Your task to perform on an android device: open a new tab in the chrome app Image 0: 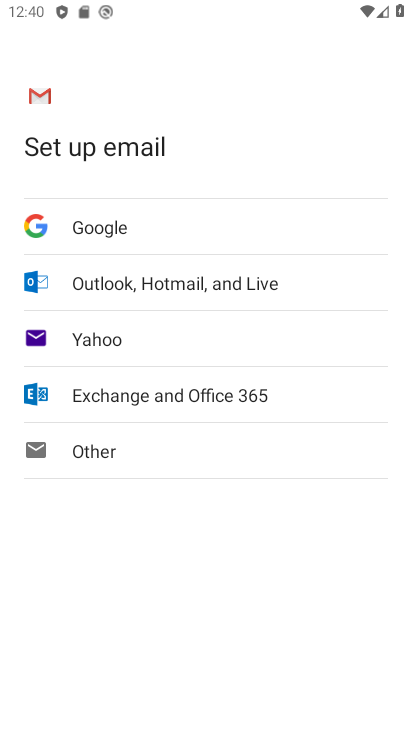
Step 0: drag from (182, 700) to (265, 173)
Your task to perform on an android device: open a new tab in the chrome app Image 1: 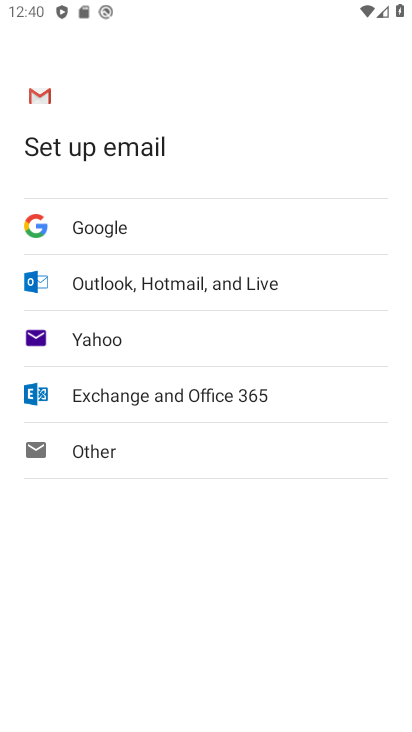
Step 1: press home button
Your task to perform on an android device: open a new tab in the chrome app Image 2: 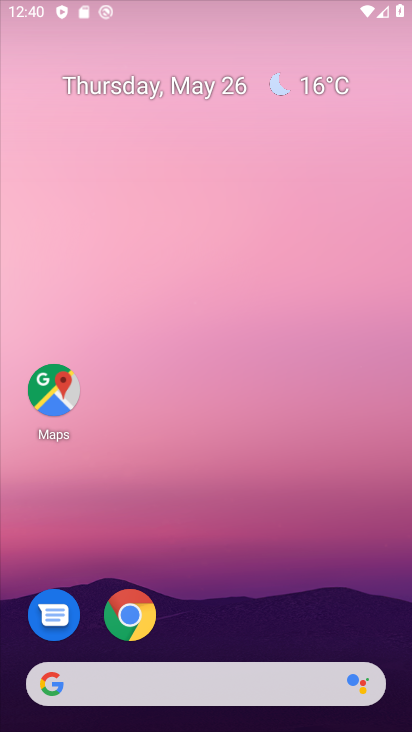
Step 2: drag from (192, 578) to (223, 98)
Your task to perform on an android device: open a new tab in the chrome app Image 3: 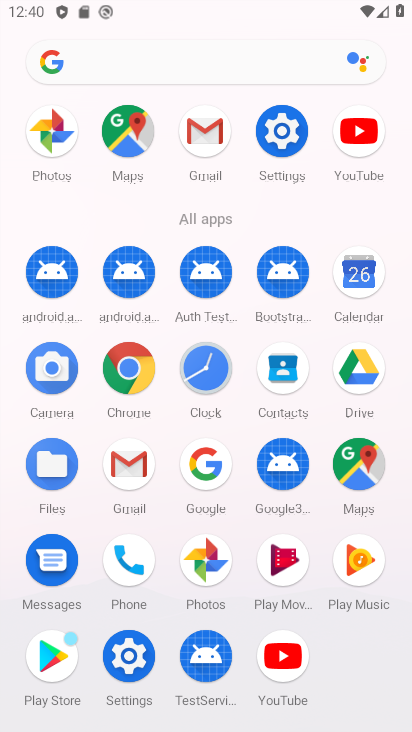
Step 3: click (134, 370)
Your task to perform on an android device: open a new tab in the chrome app Image 4: 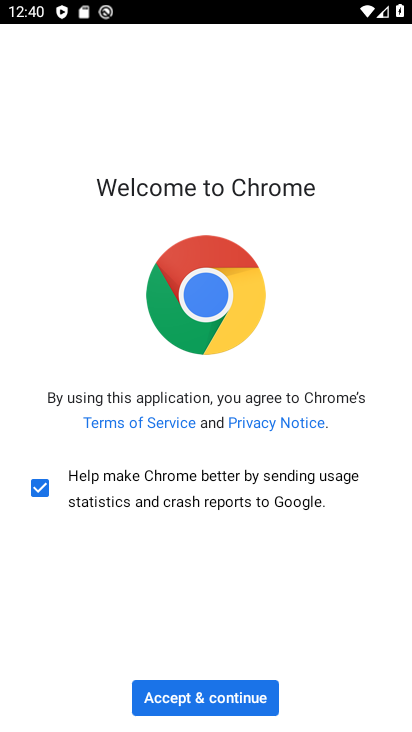
Step 4: click (222, 678)
Your task to perform on an android device: open a new tab in the chrome app Image 5: 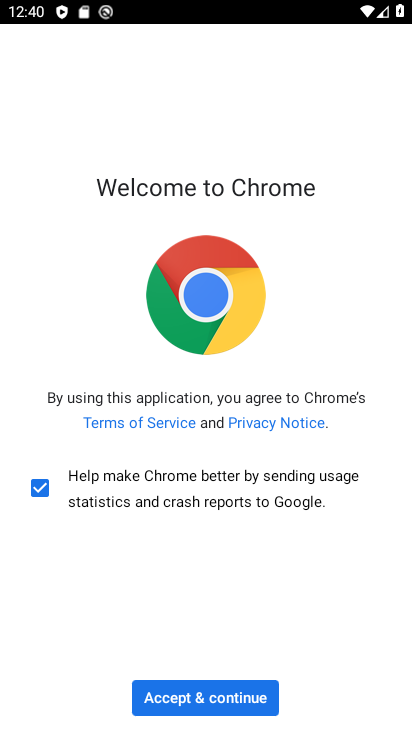
Step 5: click (201, 693)
Your task to perform on an android device: open a new tab in the chrome app Image 6: 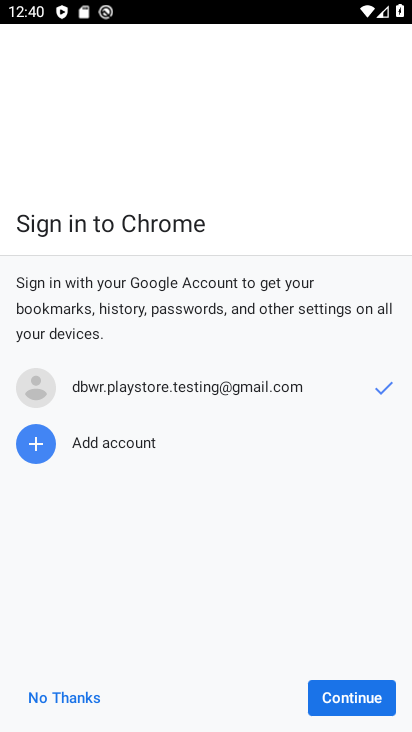
Step 6: click (65, 696)
Your task to perform on an android device: open a new tab in the chrome app Image 7: 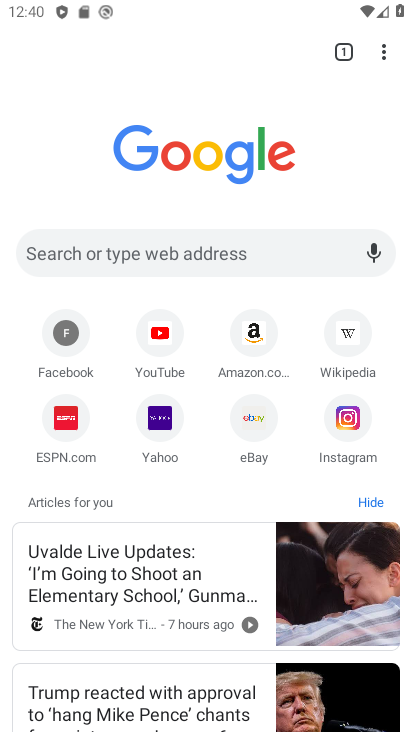
Step 7: click (360, 49)
Your task to perform on an android device: open a new tab in the chrome app Image 8: 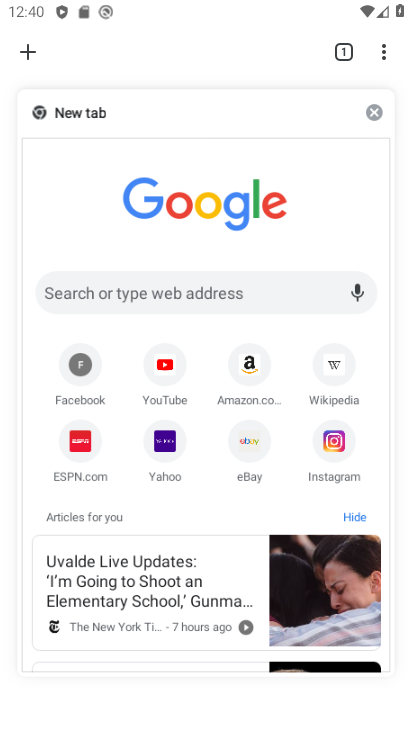
Step 8: click (32, 57)
Your task to perform on an android device: open a new tab in the chrome app Image 9: 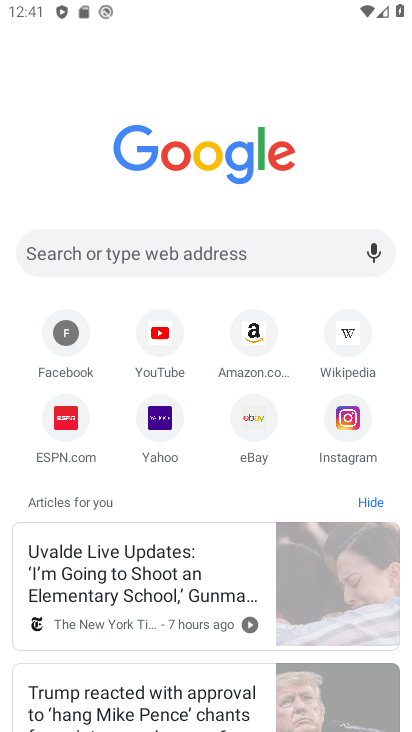
Step 9: task complete